Your task to perform on an android device: Show me popular games on the Play Store Image 0: 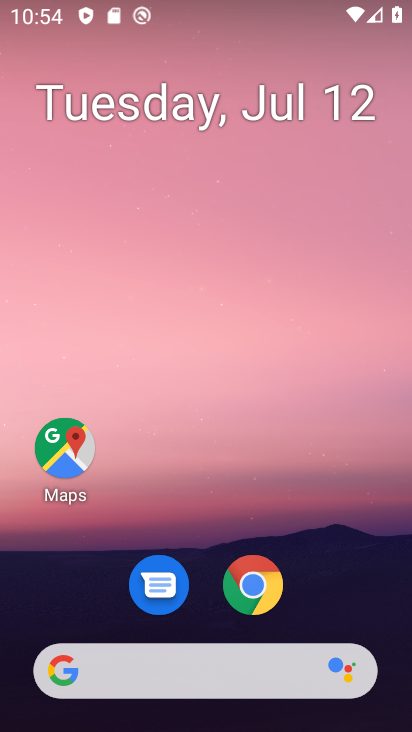
Step 0: drag from (320, 598) to (330, 15)
Your task to perform on an android device: Show me popular games on the Play Store Image 1: 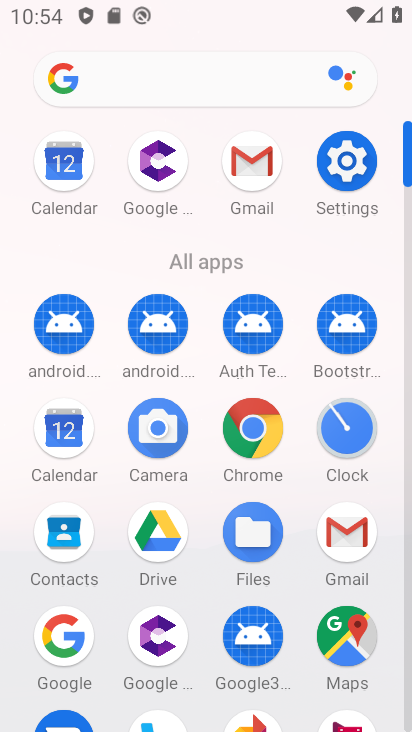
Step 1: drag from (208, 577) to (226, 112)
Your task to perform on an android device: Show me popular games on the Play Store Image 2: 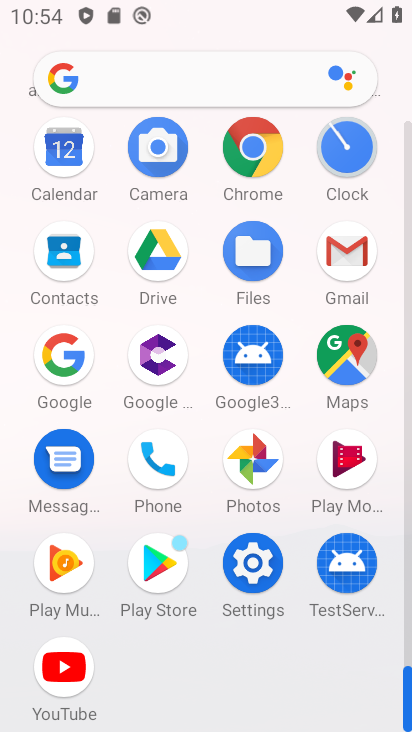
Step 2: click (166, 566)
Your task to perform on an android device: Show me popular games on the Play Store Image 3: 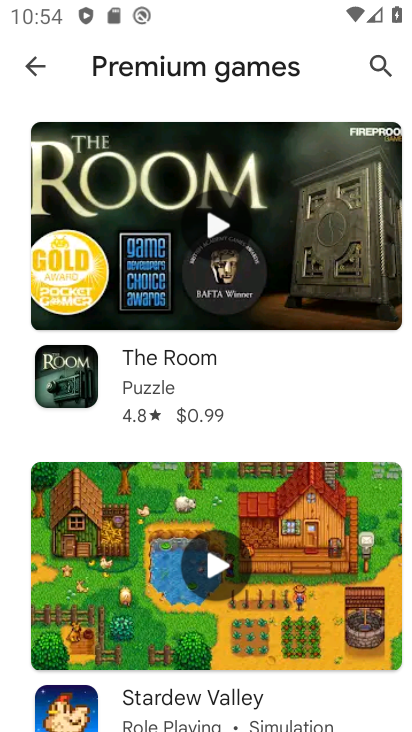
Step 3: click (37, 65)
Your task to perform on an android device: Show me popular games on the Play Store Image 4: 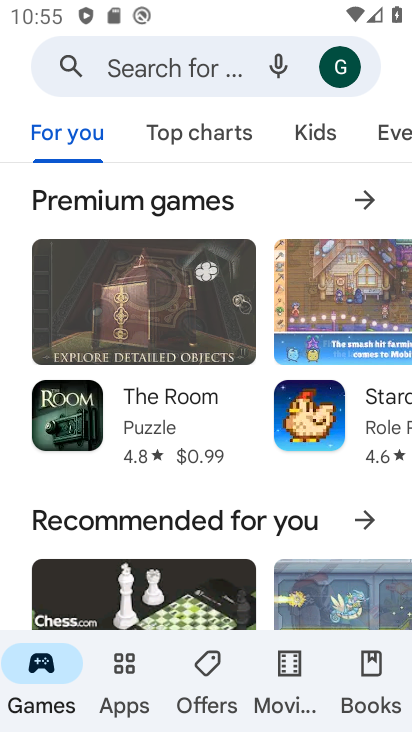
Step 4: click (377, 205)
Your task to perform on an android device: Show me popular games on the Play Store Image 5: 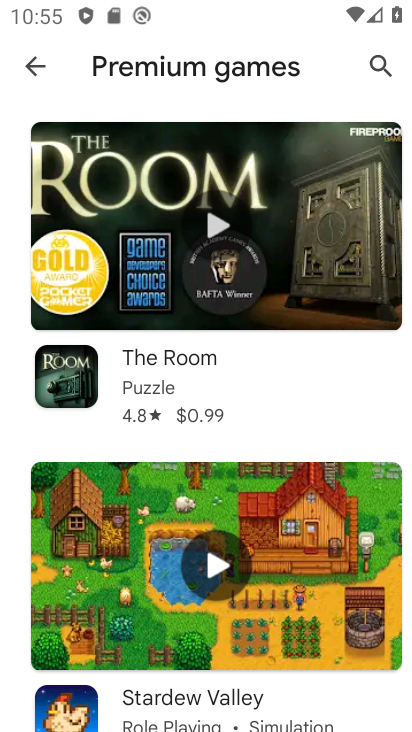
Step 5: task complete